Your task to perform on an android device: add a label to a message in the gmail app Image 0: 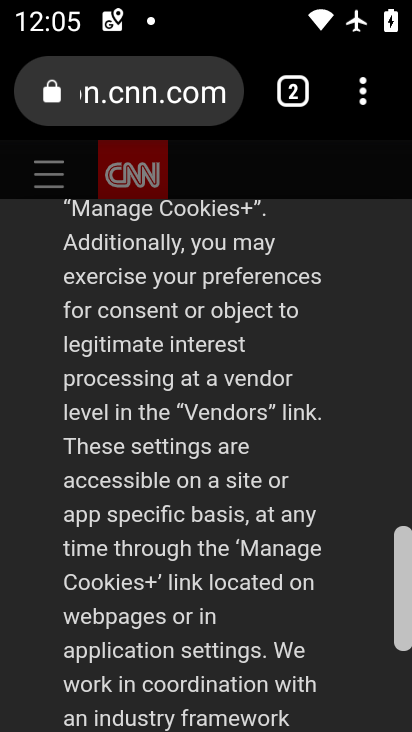
Step 0: press home button
Your task to perform on an android device: add a label to a message in the gmail app Image 1: 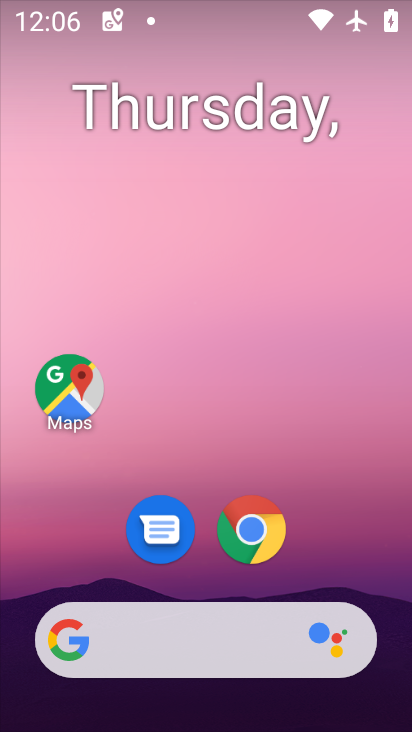
Step 1: drag from (396, 623) to (300, 120)
Your task to perform on an android device: add a label to a message in the gmail app Image 2: 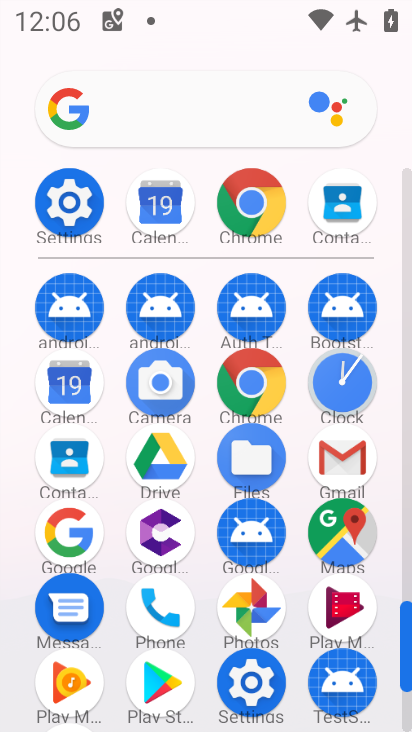
Step 2: click (340, 453)
Your task to perform on an android device: add a label to a message in the gmail app Image 3: 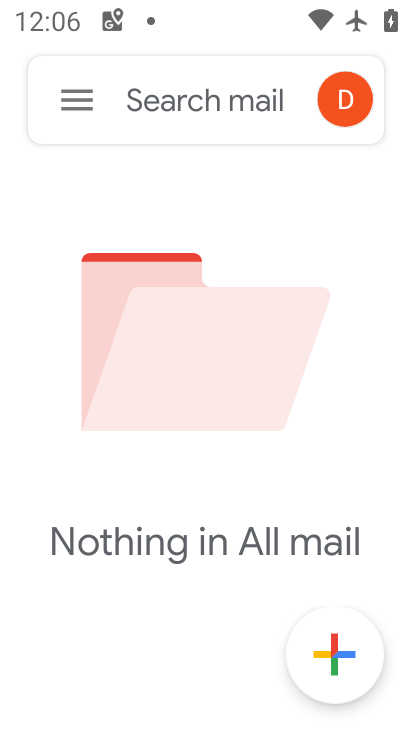
Step 3: click (76, 96)
Your task to perform on an android device: add a label to a message in the gmail app Image 4: 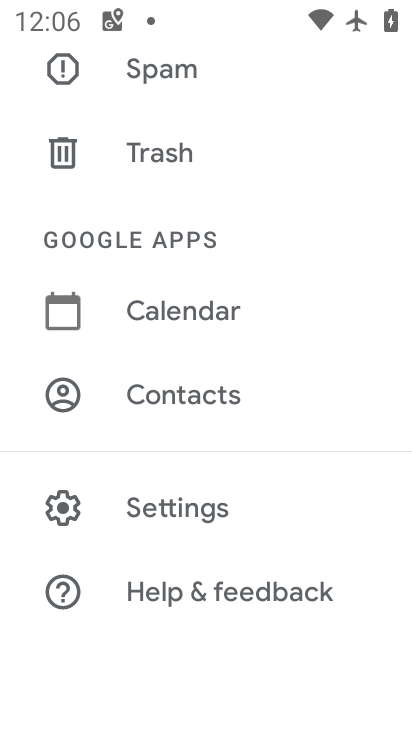
Step 4: drag from (296, 202) to (309, 496)
Your task to perform on an android device: add a label to a message in the gmail app Image 5: 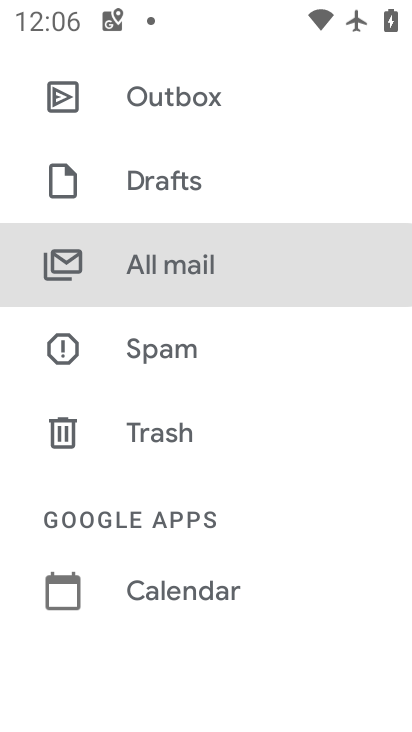
Step 5: click (168, 265)
Your task to perform on an android device: add a label to a message in the gmail app Image 6: 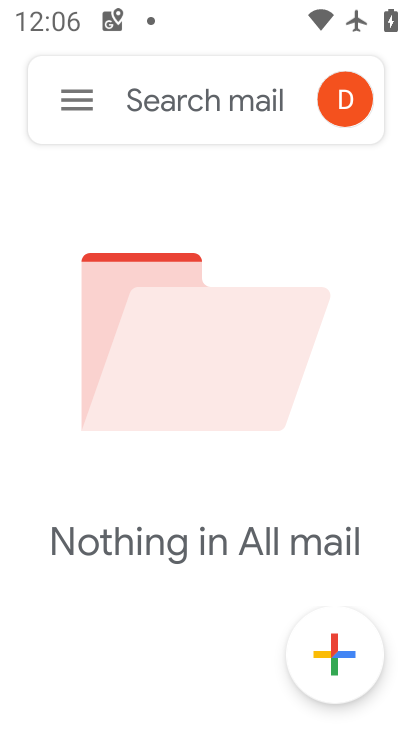
Step 6: task complete